Your task to perform on an android device: change text size in settings app Image 0: 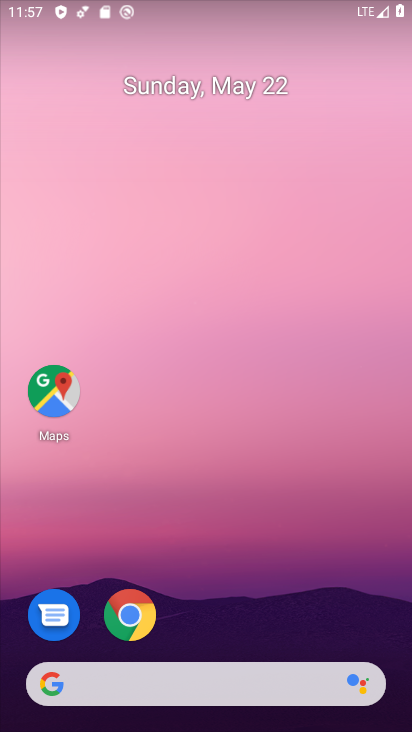
Step 0: drag from (208, 610) to (215, 54)
Your task to perform on an android device: change text size in settings app Image 1: 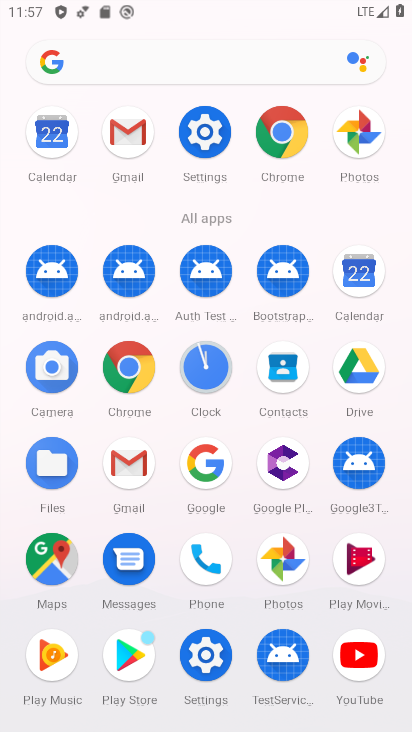
Step 1: click (200, 127)
Your task to perform on an android device: change text size in settings app Image 2: 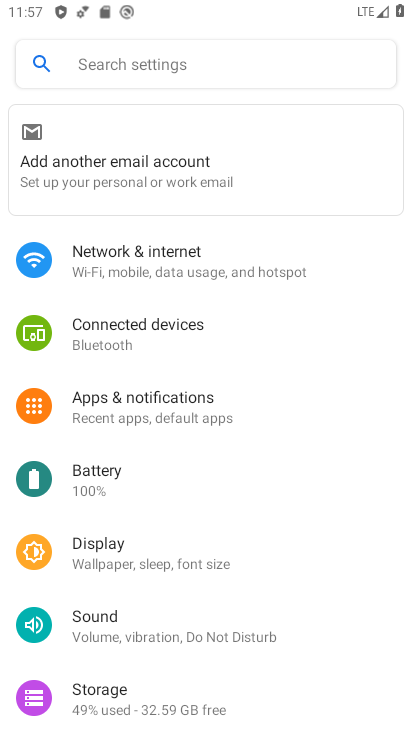
Step 2: click (135, 54)
Your task to perform on an android device: change text size in settings app Image 3: 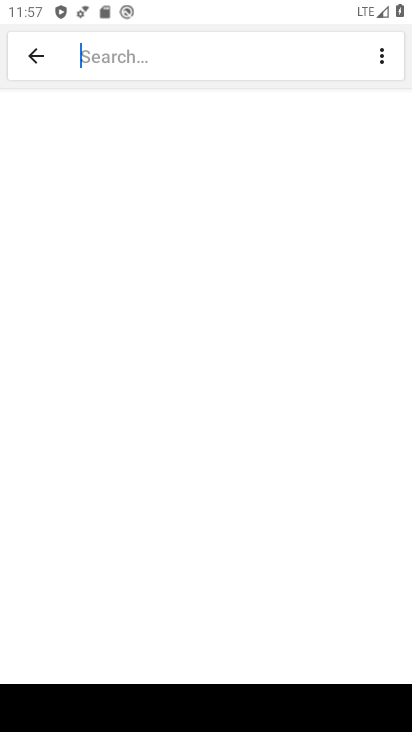
Step 3: type "text size"
Your task to perform on an android device: change text size in settings app Image 4: 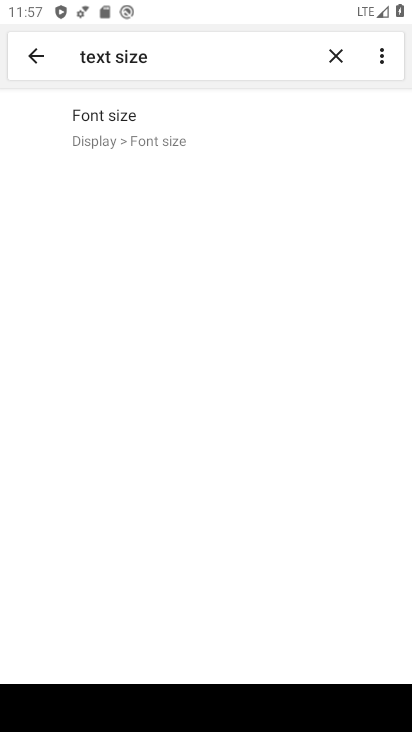
Step 4: click (149, 124)
Your task to perform on an android device: change text size in settings app Image 5: 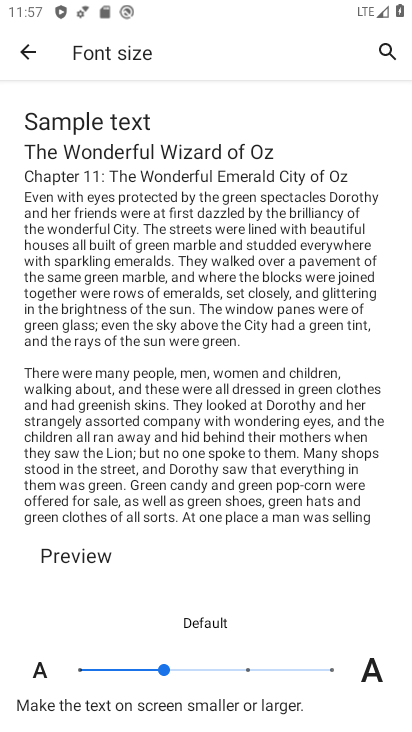
Step 5: task complete